Your task to perform on an android device: turn pop-ups off in chrome Image 0: 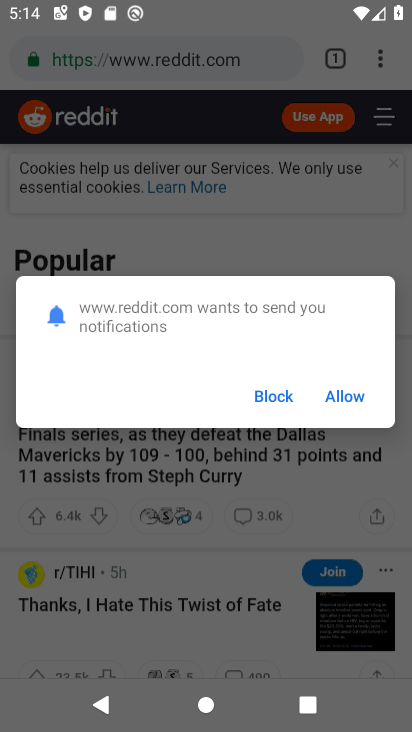
Step 0: press home button
Your task to perform on an android device: turn pop-ups off in chrome Image 1: 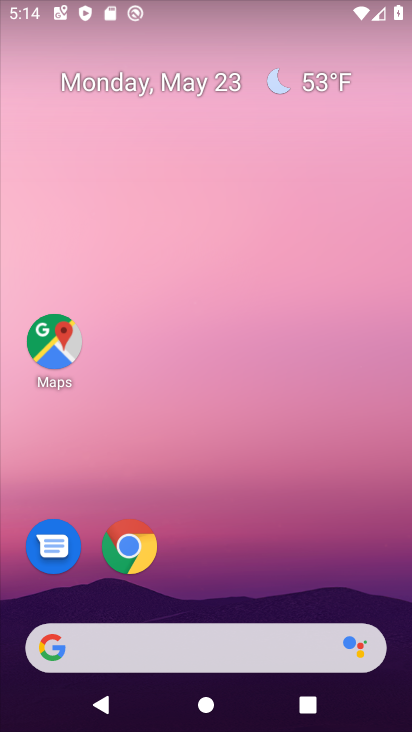
Step 1: click (128, 555)
Your task to perform on an android device: turn pop-ups off in chrome Image 2: 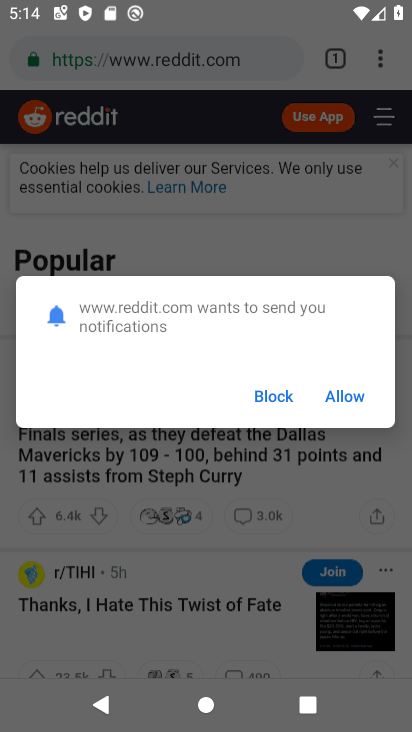
Step 2: click (356, 392)
Your task to perform on an android device: turn pop-ups off in chrome Image 3: 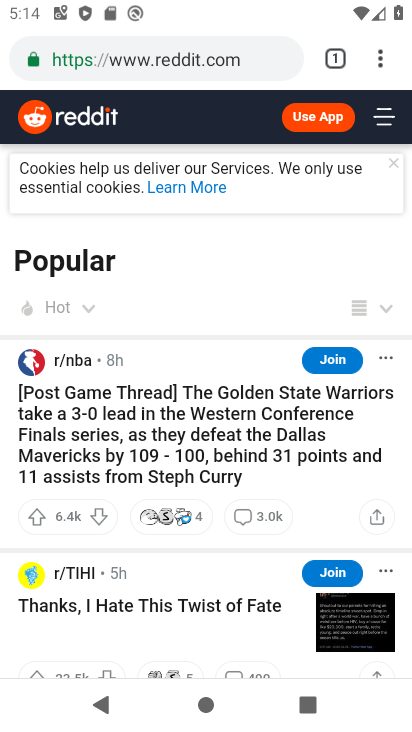
Step 3: click (381, 61)
Your task to perform on an android device: turn pop-ups off in chrome Image 4: 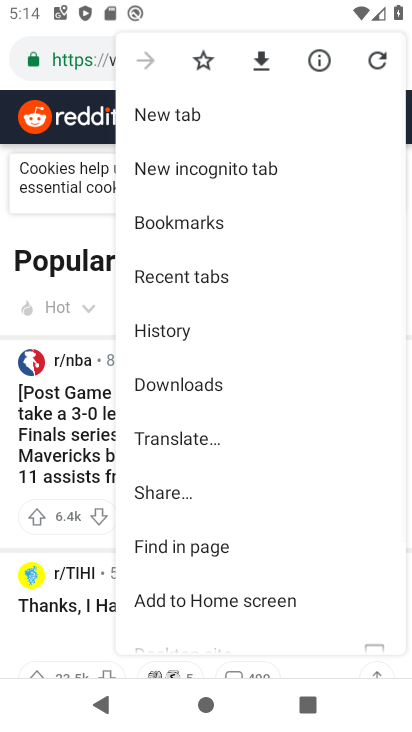
Step 4: drag from (249, 586) to (249, 257)
Your task to perform on an android device: turn pop-ups off in chrome Image 5: 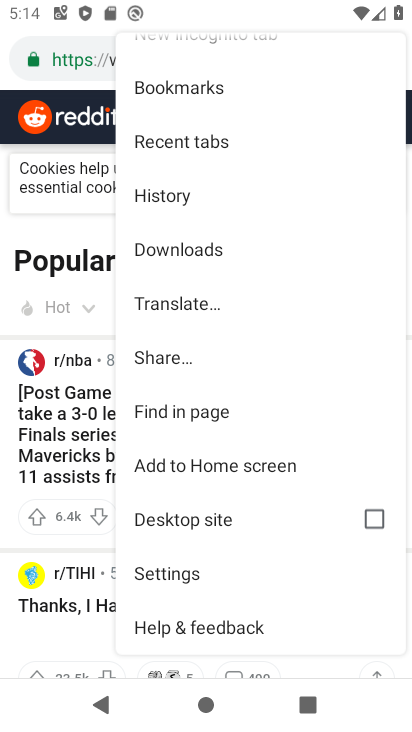
Step 5: click (184, 573)
Your task to perform on an android device: turn pop-ups off in chrome Image 6: 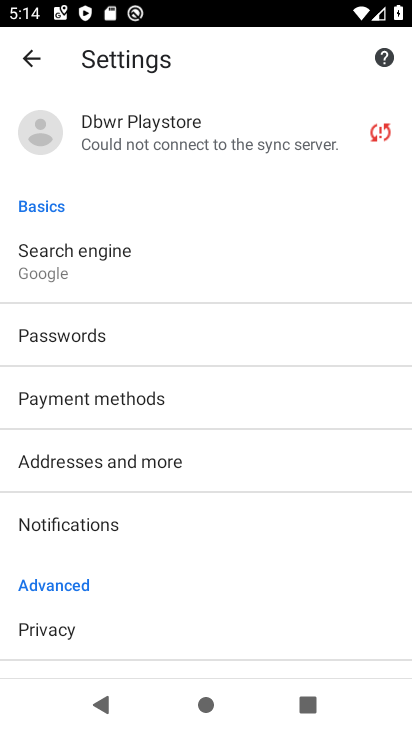
Step 6: drag from (213, 596) to (246, 273)
Your task to perform on an android device: turn pop-ups off in chrome Image 7: 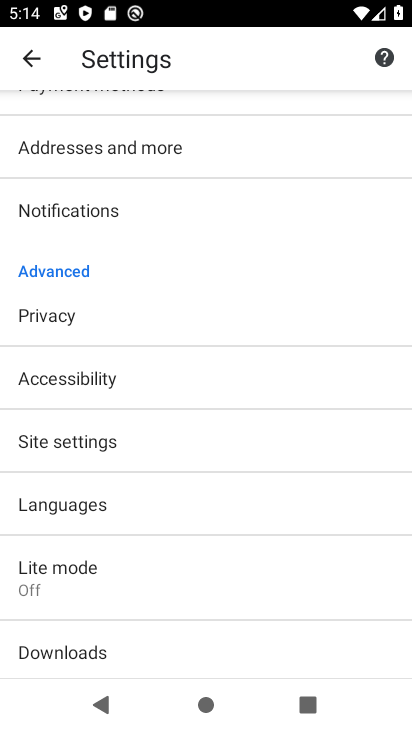
Step 7: click (99, 444)
Your task to perform on an android device: turn pop-ups off in chrome Image 8: 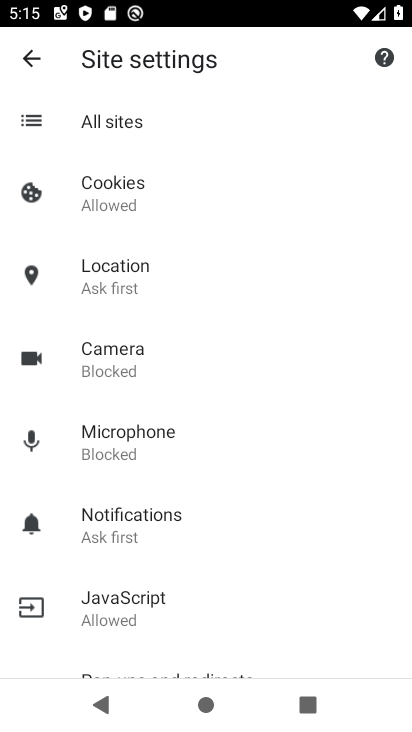
Step 8: drag from (230, 582) to (228, 227)
Your task to perform on an android device: turn pop-ups off in chrome Image 9: 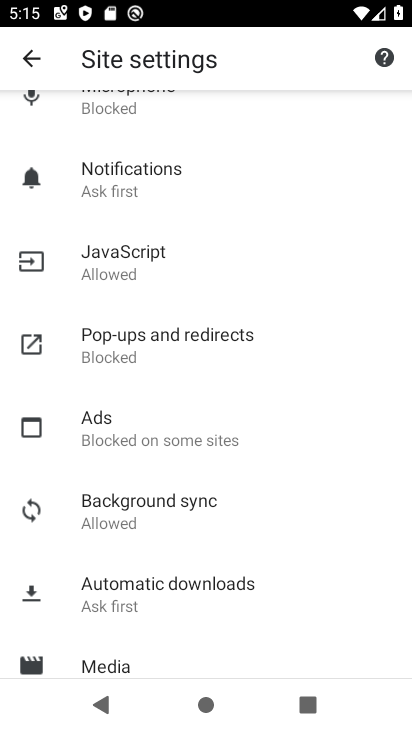
Step 9: click (186, 348)
Your task to perform on an android device: turn pop-ups off in chrome Image 10: 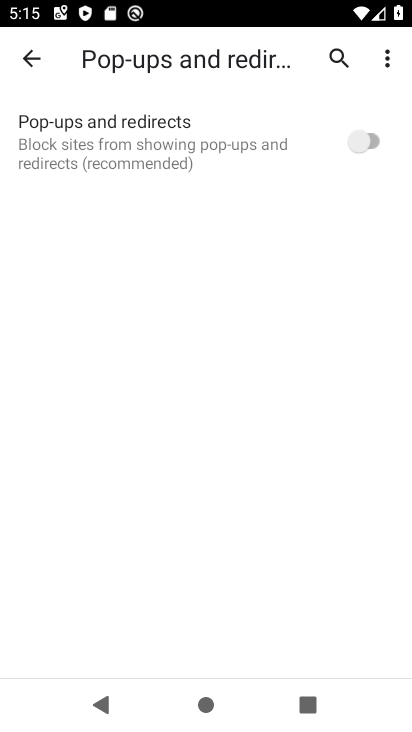
Step 10: task complete